Your task to perform on an android device: Is it going to rain today? Image 0: 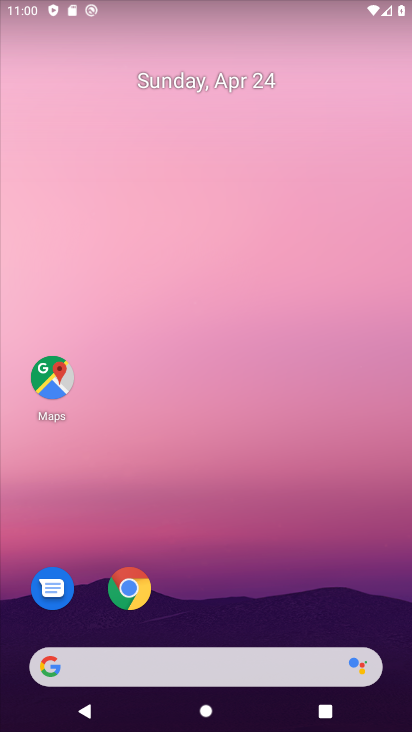
Step 0: drag from (284, 593) to (287, 103)
Your task to perform on an android device: Is it going to rain today? Image 1: 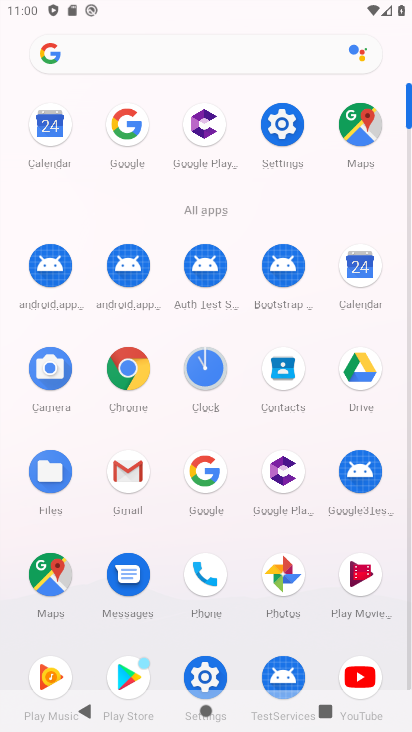
Step 1: click (340, 175)
Your task to perform on an android device: Is it going to rain today? Image 2: 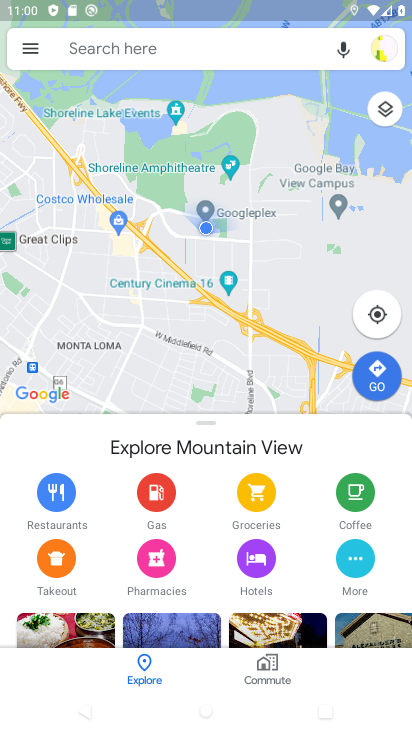
Step 2: press home button
Your task to perform on an android device: Is it going to rain today? Image 3: 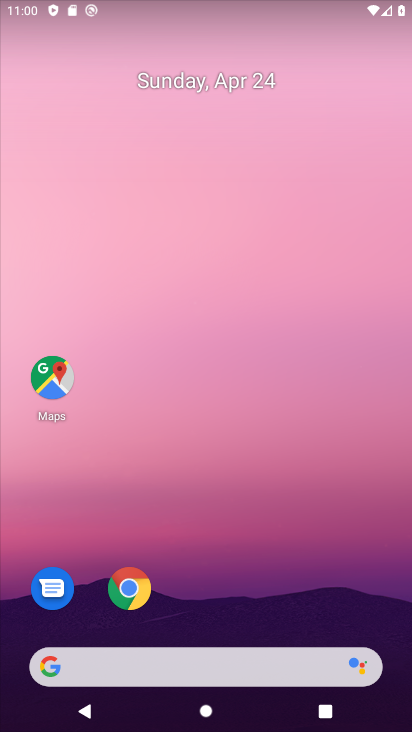
Step 3: drag from (246, 554) to (262, 152)
Your task to perform on an android device: Is it going to rain today? Image 4: 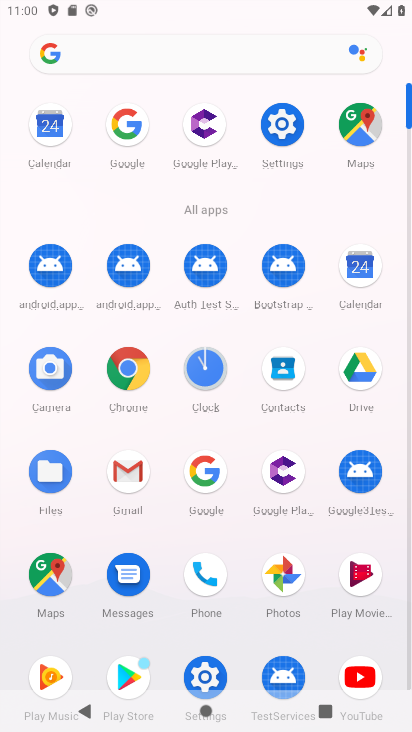
Step 4: click (206, 470)
Your task to perform on an android device: Is it going to rain today? Image 5: 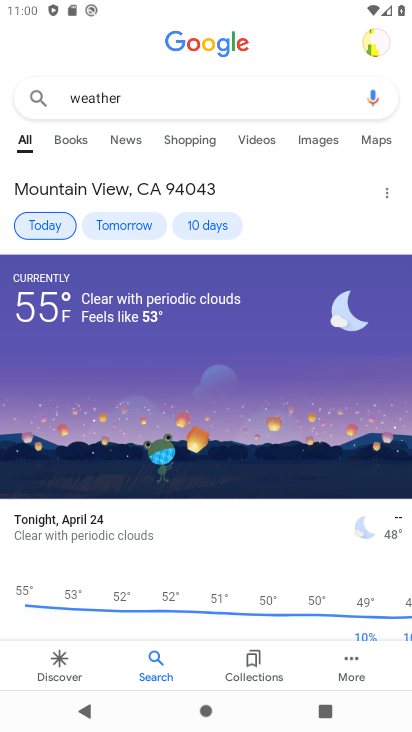
Step 5: drag from (266, 557) to (279, 366)
Your task to perform on an android device: Is it going to rain today? Image 6: 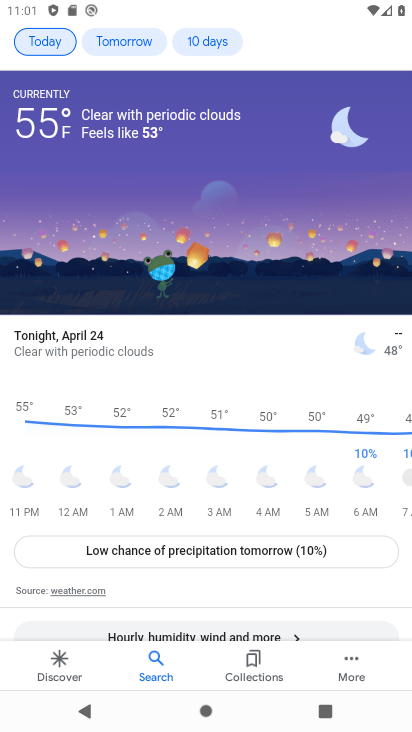
Step 6: drag from (310, 569) to (307, 437)
Your task to perform on an android device: Is it going to rain today? Image 7: 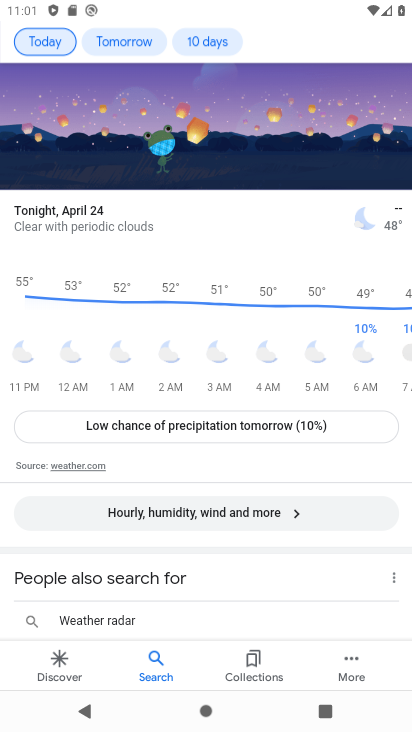
Step 7: click (281, 514)
Your task to perform on an android device: Is it going to rain today? Image 8: 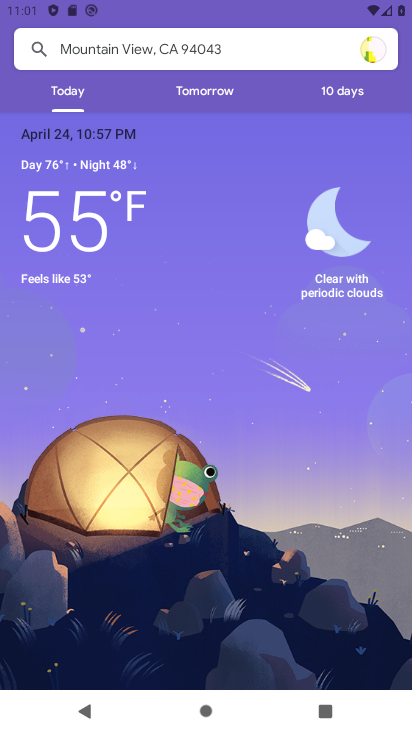
Step 8: task complete